Your task to perform on an android device: What's on my calendar today? Image 0: 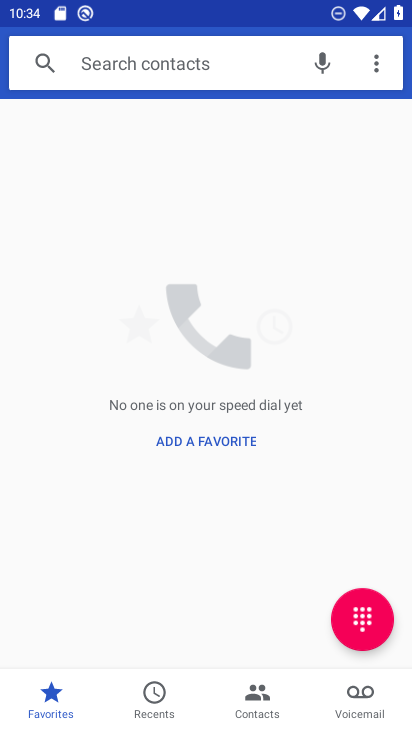
Step 0: press back button
Your task to perform on an android device: What's on my calendar today? Image 1: 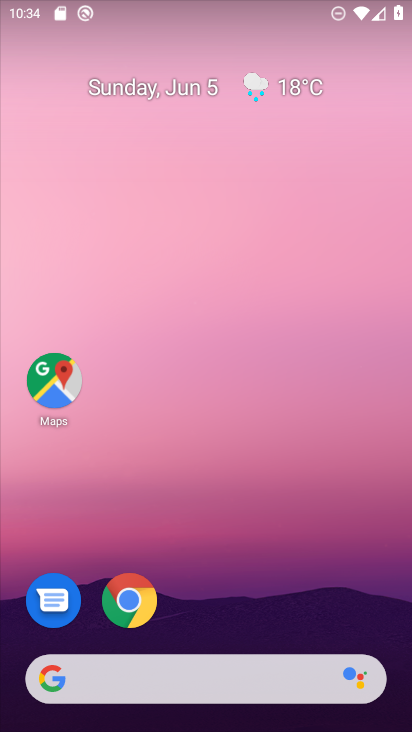
Step 1: drag from (232, 563) to (268, 6)
Your task to perform on an android device: What's on my calendar today? Image 2: 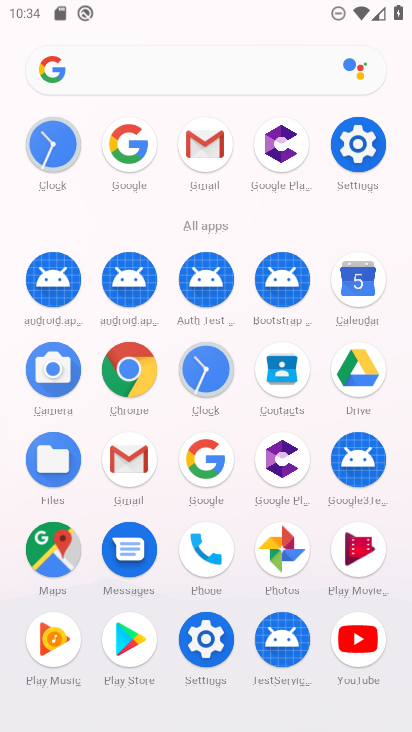
Step 2: click (363, 275)
Your task to perform on an android device: What's on my calendar today? Image 3: 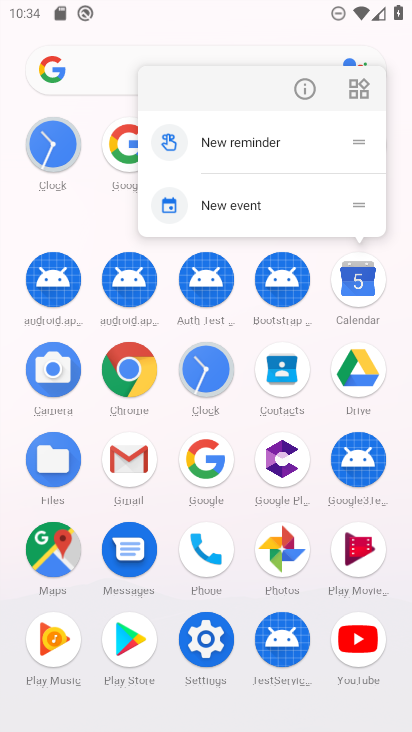
Step 3: click (363, 275)
Your task to perform on an android device: What's on my calendar today? Image 4: 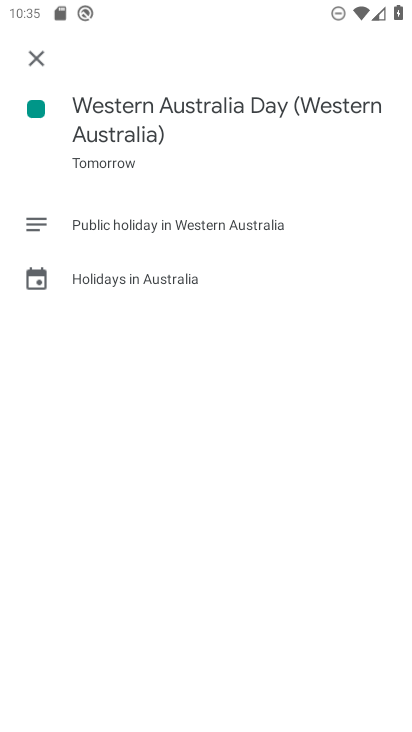
Step 4: click (36, 60)
Your task to perform on an android device: What's on my calendar today? Image 5: 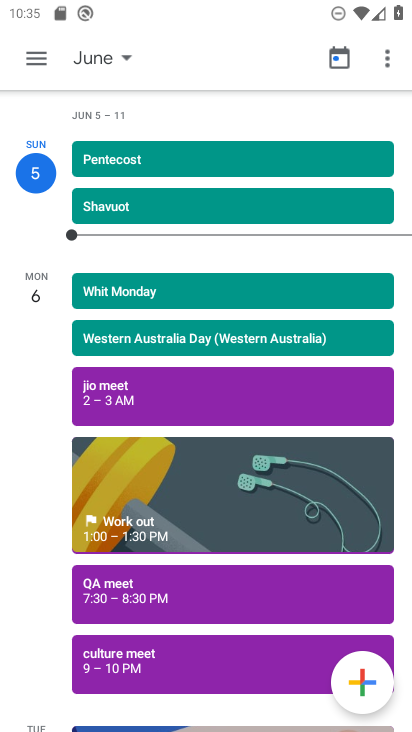
Step 5: drag from (130, 417) to (173, 537)
Your task to perform on an android device: What's on my calendar today? Image 6: 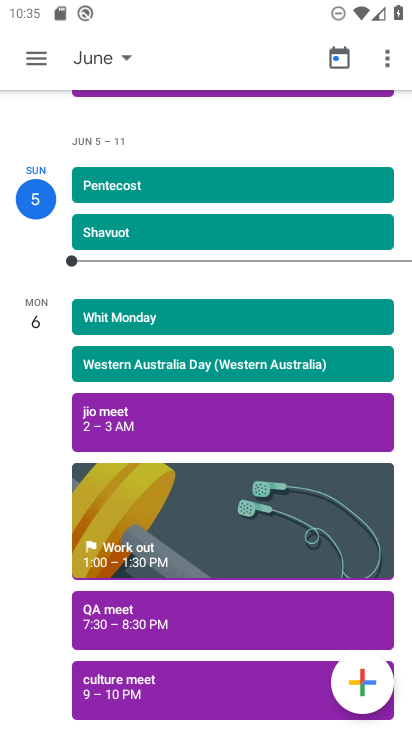
Step 6: click (152, 368)
Your task to perform on an android device: What's on my calendar today? Image 7: 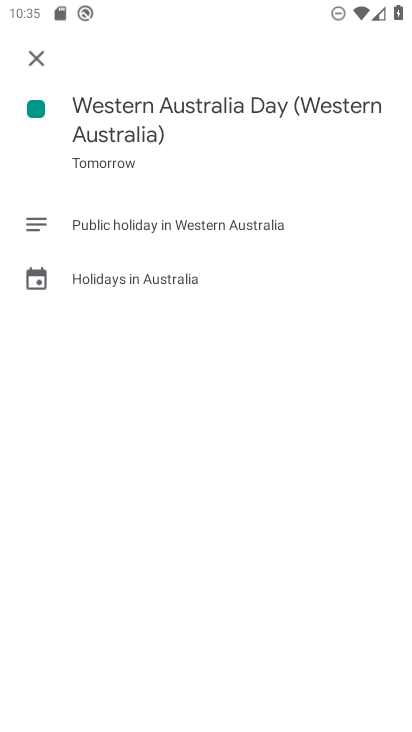
Step 7: task complete